Your task to perform on an android device: Toggle the flashlight Image 0: 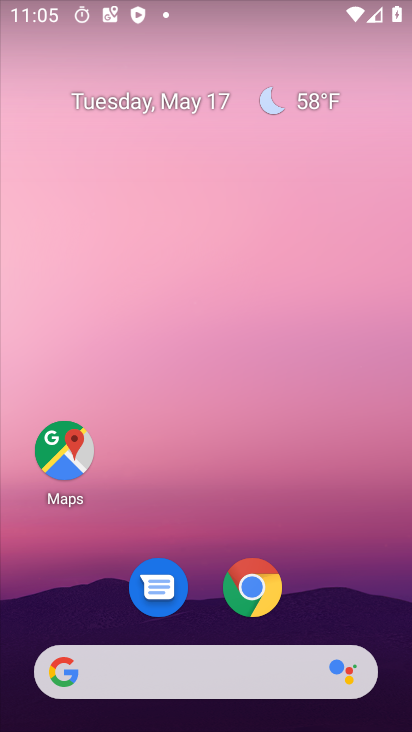
Step 0: drag from (316, 619) to (217, 193)
Your task to perform on an android device: Toggle the flashlight Image 1: 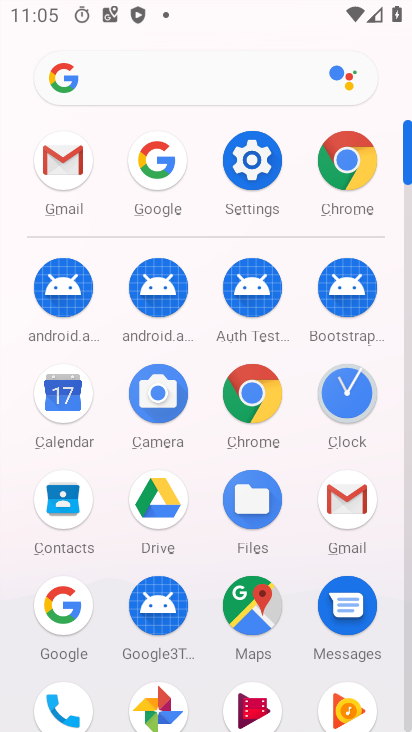
Step 1: click (253, 161)
Your task to perform on an android device: Toggle the flashlight Image 2: 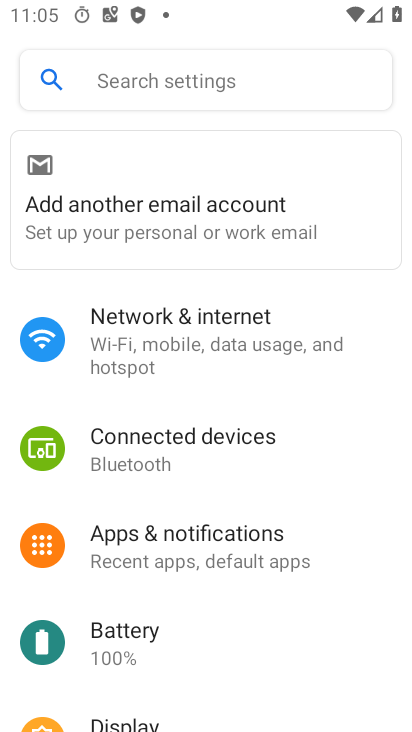
Step 2: drag from (212, 409) to (210, 347)
Your task to perform on an android device: Toggle the flashlight Image 3: 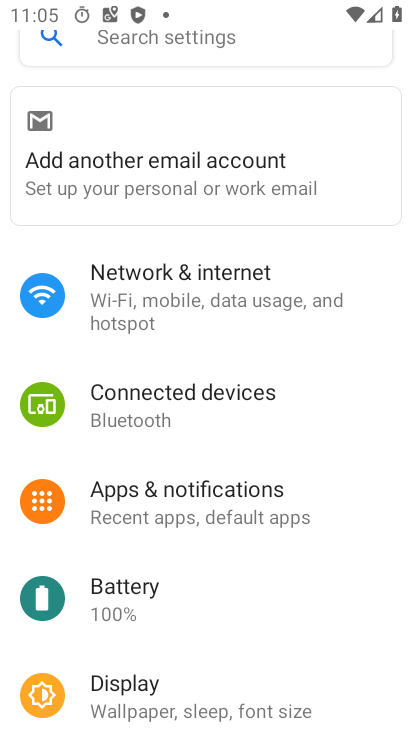
Step 3: drag from (221, 437) to (232, 377)
Your task to perform on an android device: Toggle the flashlight Image 4: 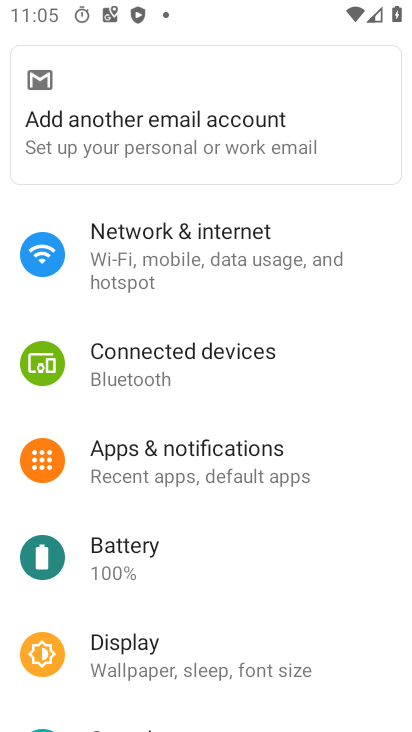
Step 4: drag from (206, 416) to (219, 360)
Your task to perform on an android device: Toggle the flashlight Image 5: 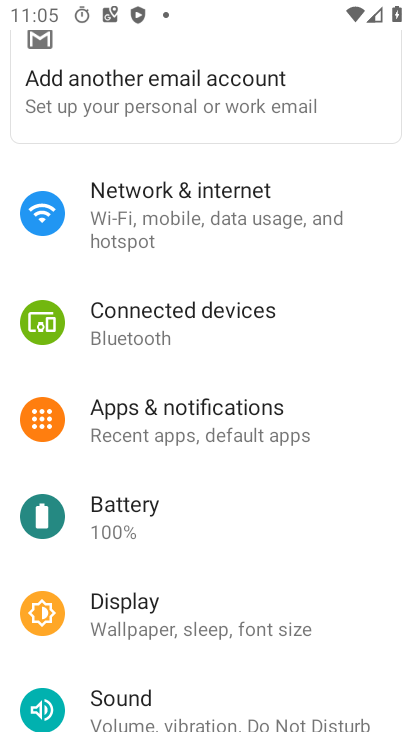
Step 5: drag from (197, 503) to (195, 434)
Your task to perform on an android device: Toggle the flashlight Image 6: 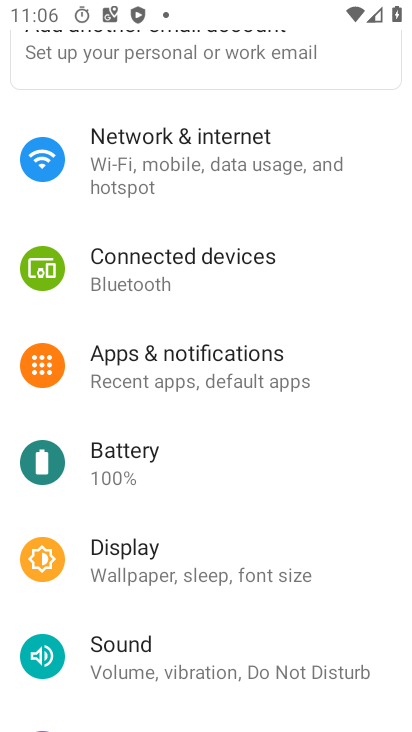
Step 6: drag from (165, 519) to (172, 455)
Your task to perform on an android device: Toggle the flashlight Image 7: 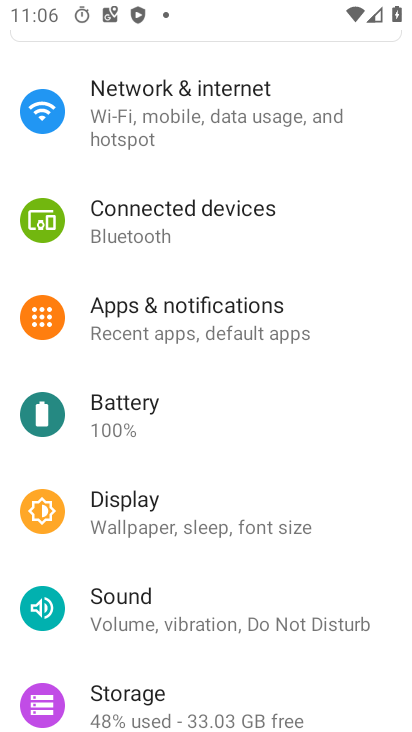
Step 7: click (180, 537)
Your task to perform on an android device: Toggle the flashlight Image 8: 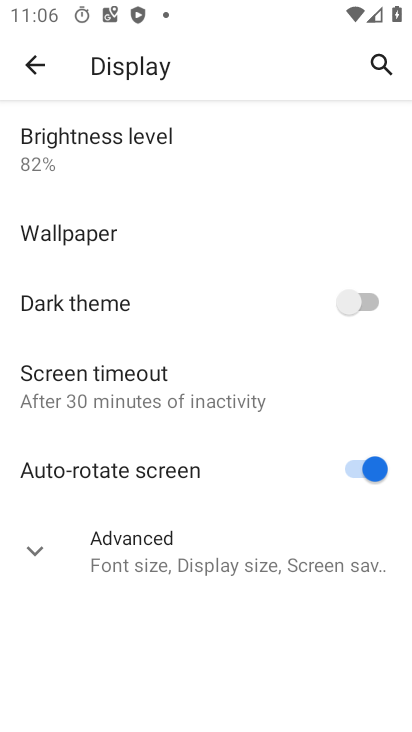
Step 8: click (188, 401)
Your task to perform on an android device: Toggle the flashlight Image 9: 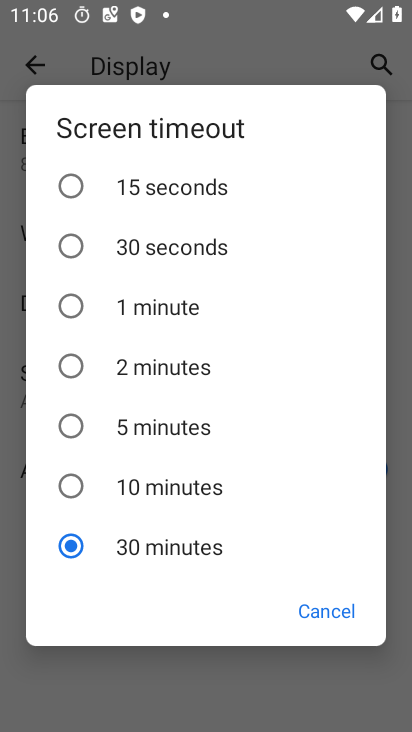
Step 9: drag from (198, 473) to (238, 328)
Your task to perform on an android device: Toggle the flashlight Image 10: 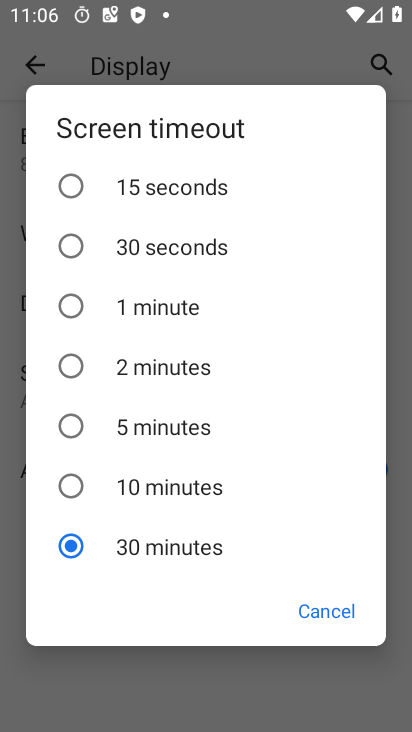
Step 10: click (322, 608)
Your task to perform on an android device: Toggle the flashlight Image 11: 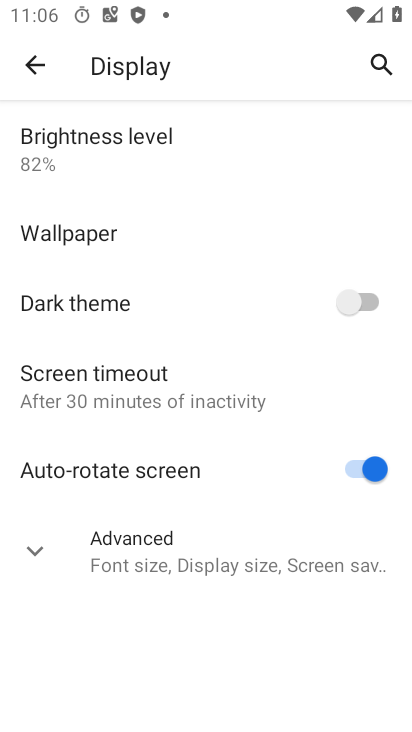
Step 11: click (269, 560)
Your task to perform on an android device: Toggle the flashlight Image 12: 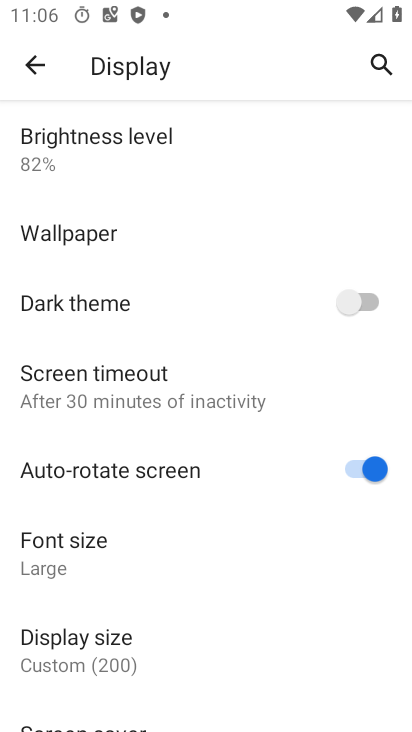
Step 12: task complete